Your task to perform on an android device: turn off sleep mode Image 0: 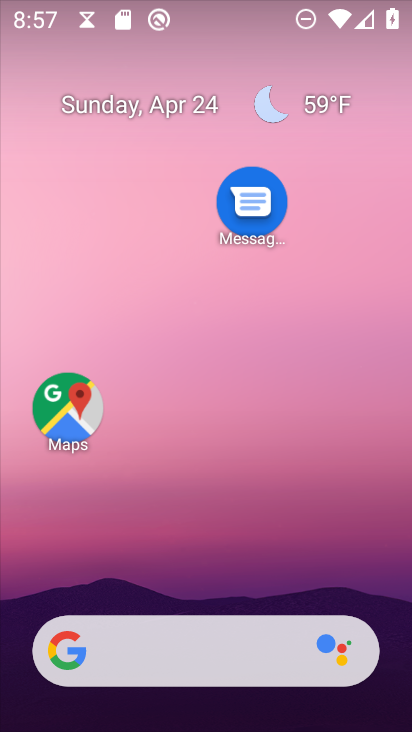
Step 0: drag from (155, 650) to (334, 2)
Your task to perform on an android device: turn off sleep mode Image 1: 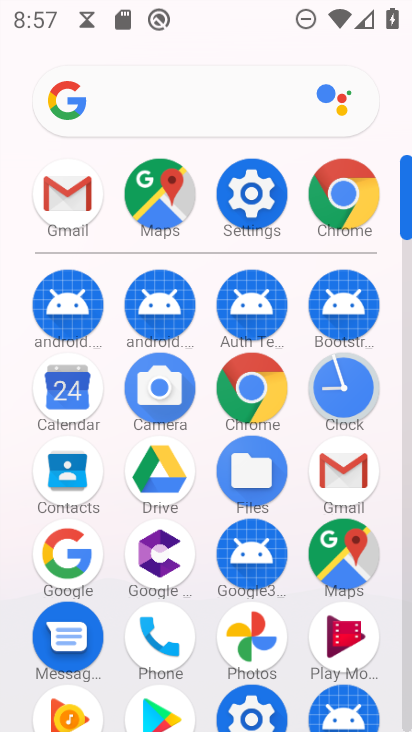
Step 1: click (259, 198)
Your task to perform on an android device: turn off sleep mode Image 2: 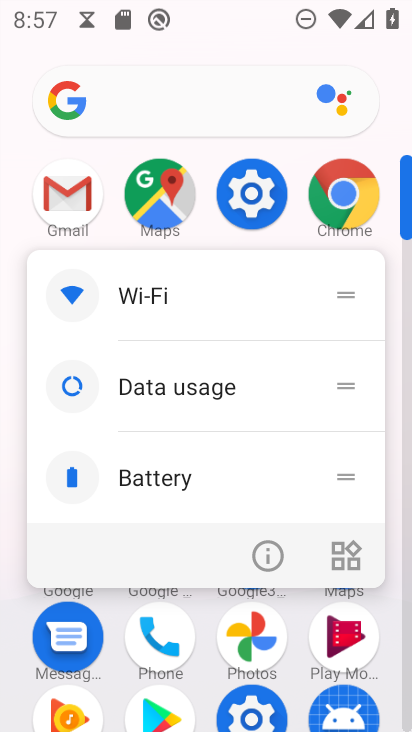
Step 2: click (254, 210)
Your task to perform on an android device: turn off sleep mode Image 3: 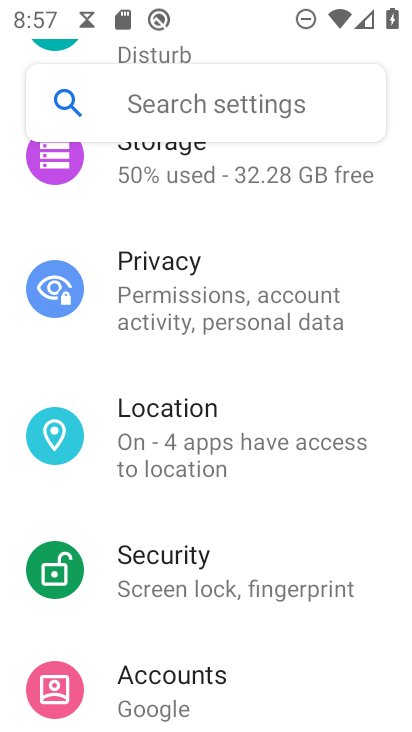
Step 3: drag from (281, 254) to (208, 610)
Your task to perform on an android device: turn off sleep mode Image 4: 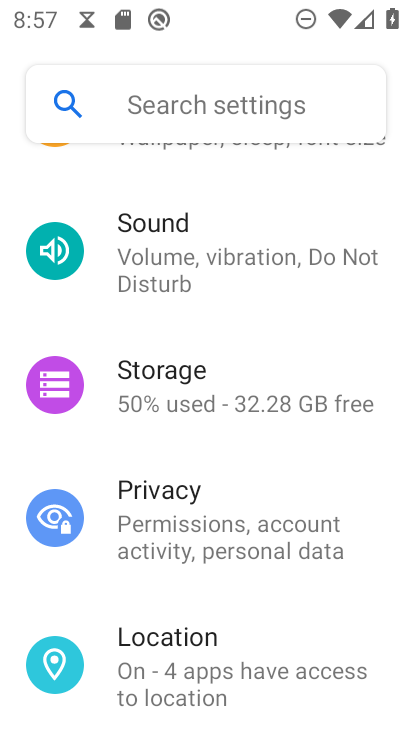
Step 4: drag from (304, 201) to (186, 536)
Your task to perform on an android device: turn off sleep mode Image 5: 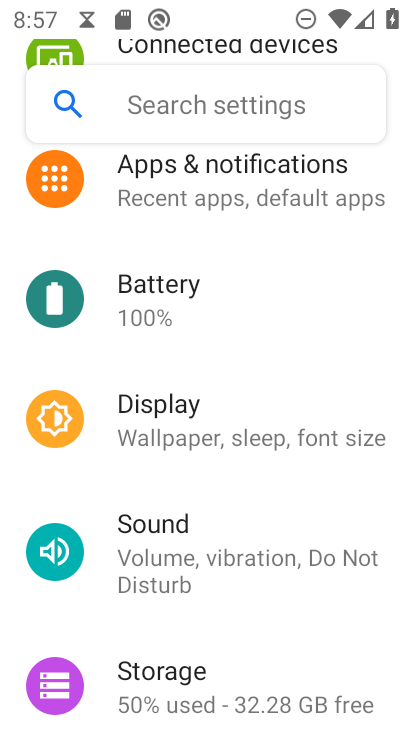
Step 5: click (190, 424)
Your task to perform on an android device: turn off sleep mode Image 6: 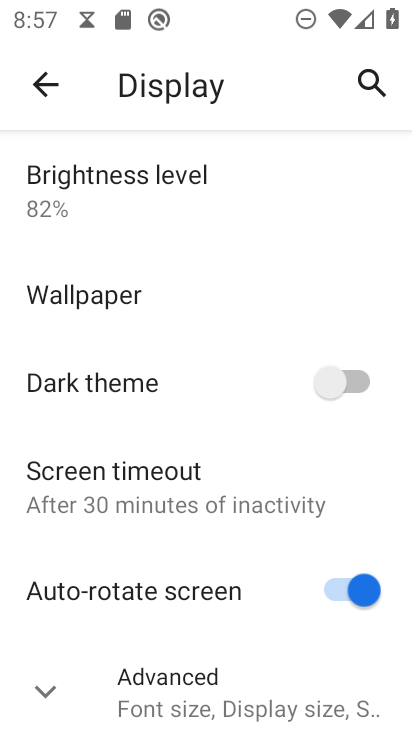
Step 6: click (102, 685)
Your task to perform on an android device: turn off sleep mode Image 7: 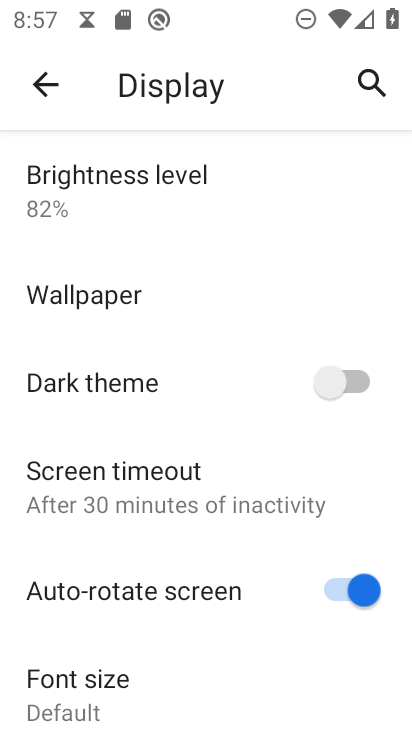
Step 7: task complete